Your task to perform on an android device: Open Google Chrome and open the bookmarks view Image 0: 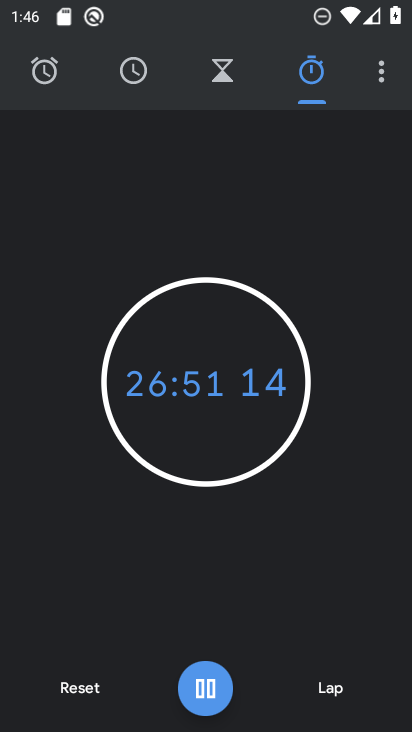
Step 0: click (264, 515)
Your task to perform on an android device: Open Google Chrome and open the bookmarks view Image 1: 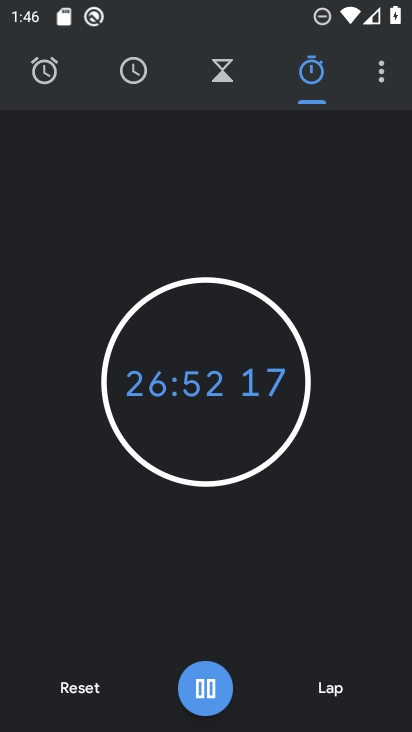
Step 1: press home button
Your task to perform on an android device: Open Google Chrome and open the bookmarks view Image 2: 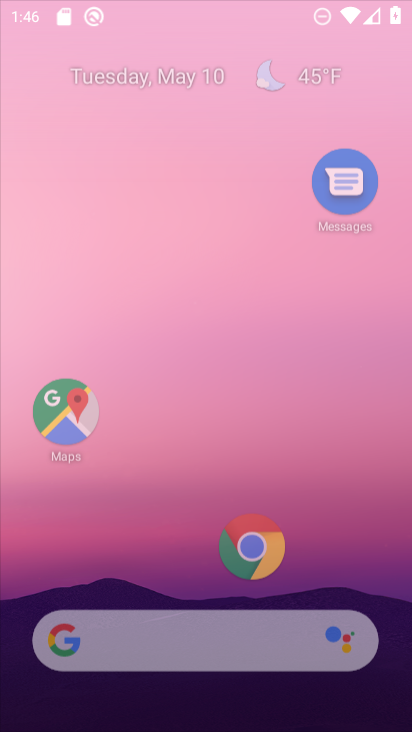
Step 2: drag from (228, 602) to (359, 210)
Your task to perform on an android device: Open Google Chrome and open the bookmarks view Image 3: 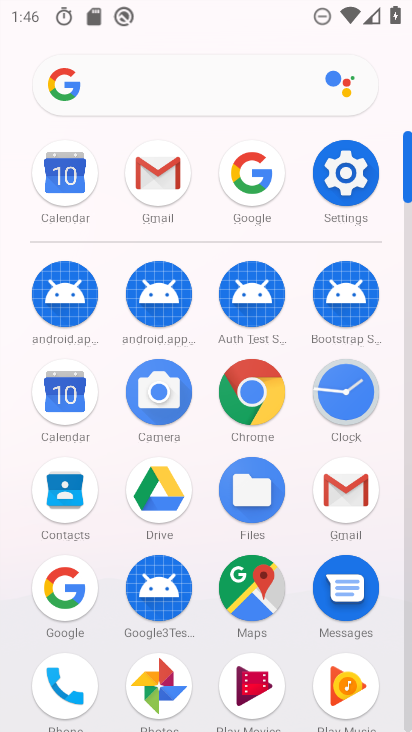
Step 3: click (249, 371)
Your task to perform on an android device: Open Google Chrome and open the bookmarks view Image 4: 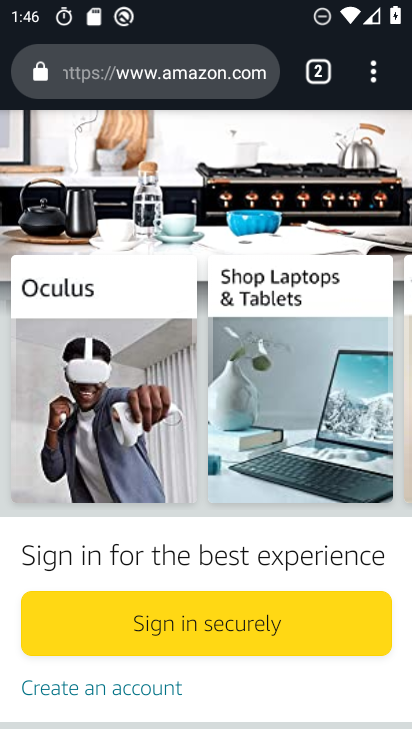
Step 4: task complete